Your task to perform on an android device: Open Chrome and go to settings Image 0: 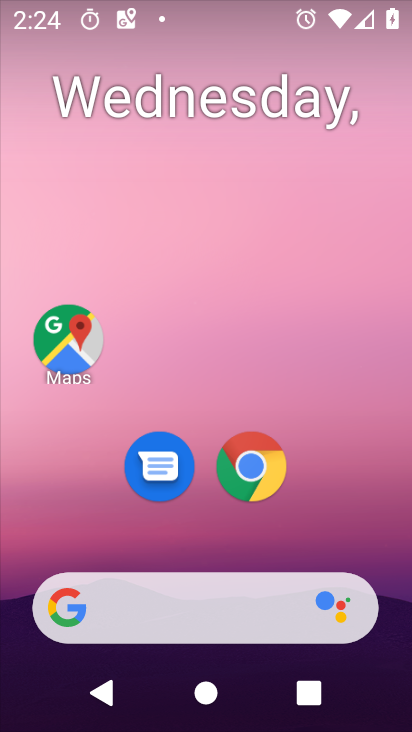
Step 0: click (250, 458)
Your task to perform on an android device: Open Chrome and go to settings Image 1: 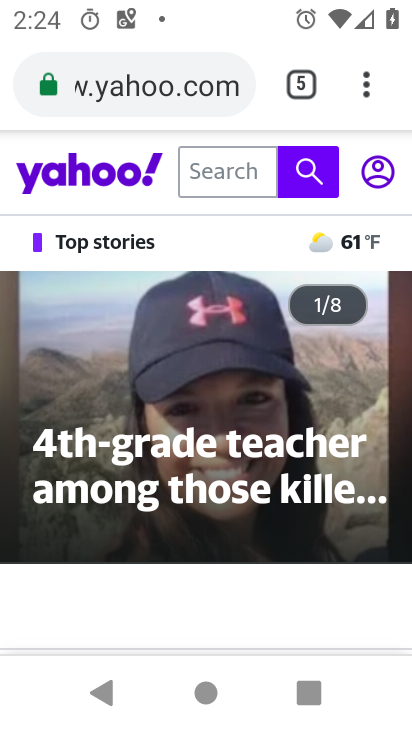
Step 1: click (365, 93)
Your task to perform on an android device: Open Chrome and go to settings Image 2: 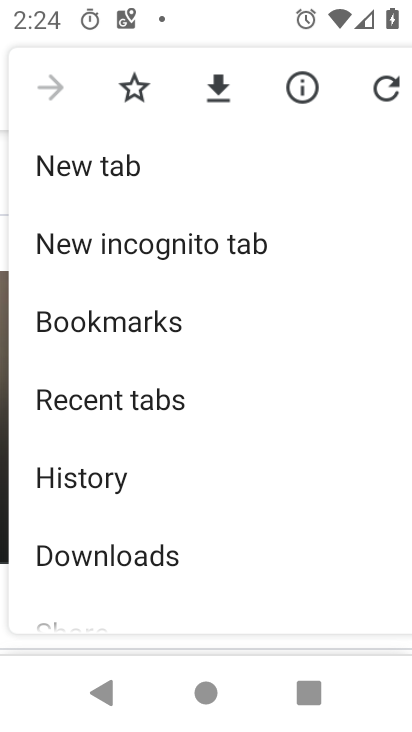
Step 2: drag from (326, 519) to (263, 146)
Your task to perform on an android device: Open Chrome and go to settings Image 3: 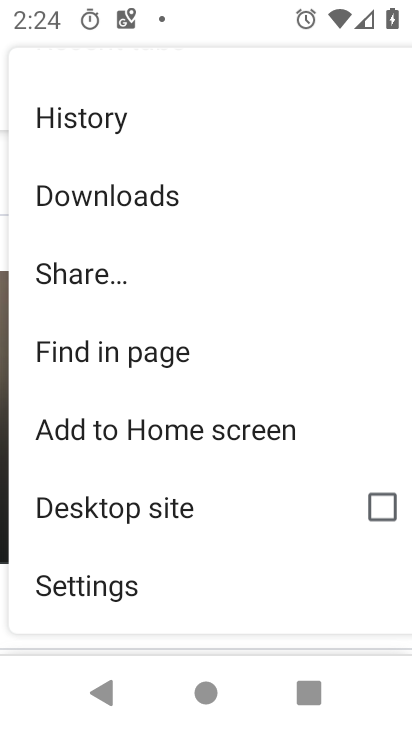
Step 3: drag from (241, 543) to (264, 287)
Your task to perform on an android device: Open Chrome and go to settings Image 4: 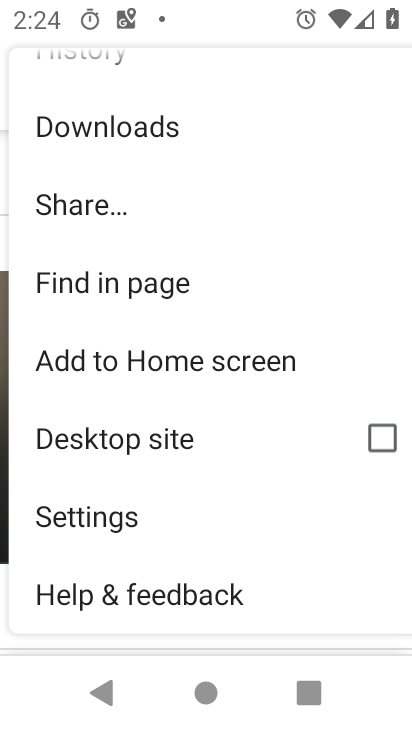
Step 4: click (146, 522)
Your task to perform on an android device: Open Chrome and go to settings Image 5: 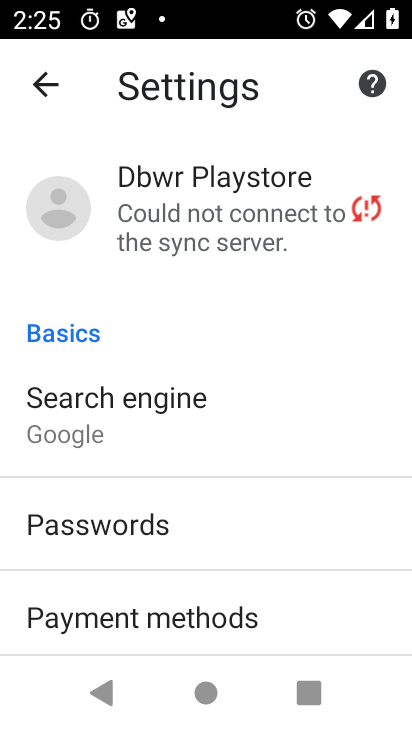
Step 5: task complete